Your task to perform on an android device: open sync settings in chrome Image 0: 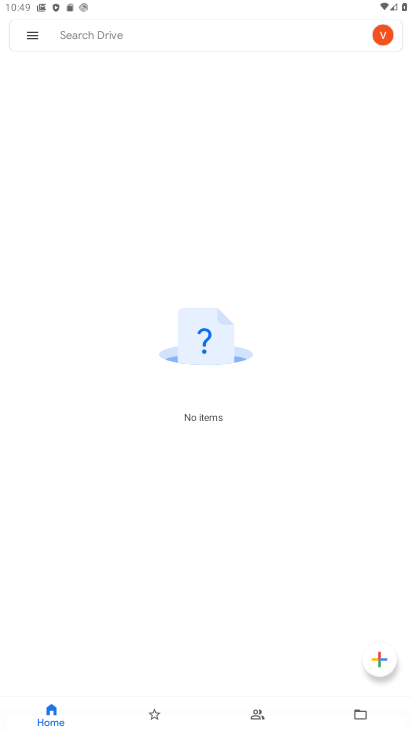
Step 0: press home button
Your task to perform on an android device: open sync settings in chrome Image 1: 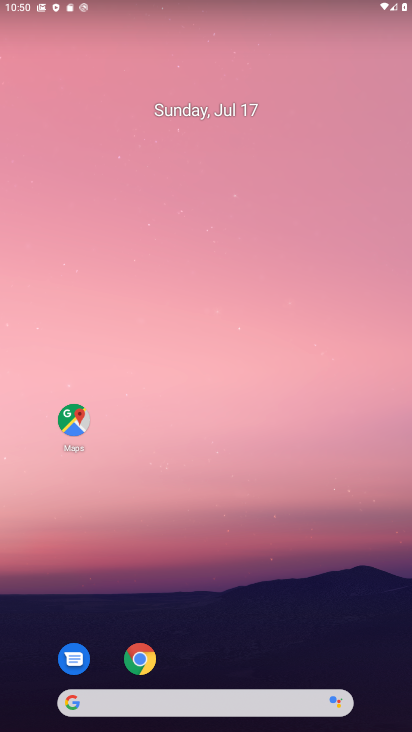
Step 1: drag from (246, 588) to (344, 185)
Your task to perform on an android device: open sync settings in chrome Image 2: 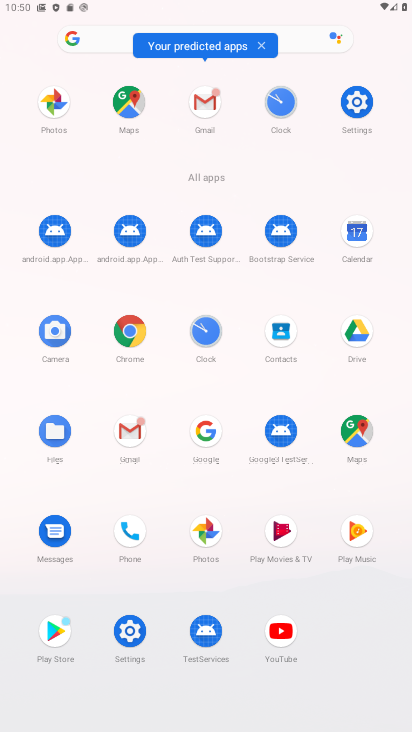
Step 2: click (125, 329)
Your task to perform on an android device: open sync settings in chrome Image 3: 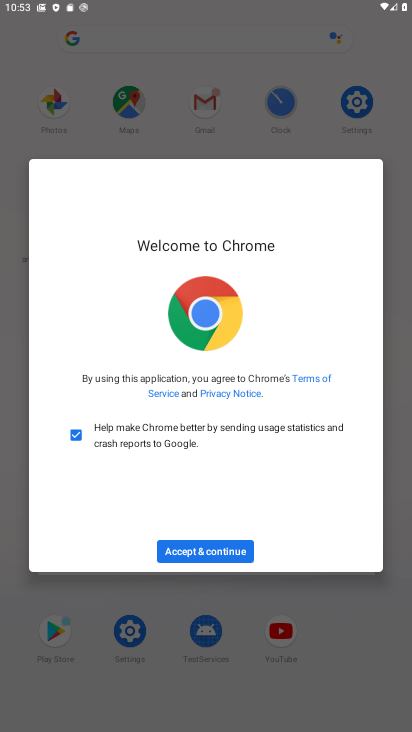
Step 3: click (209, 550)
Your task to perform on an android device: open sync settings in chrome Image 4: 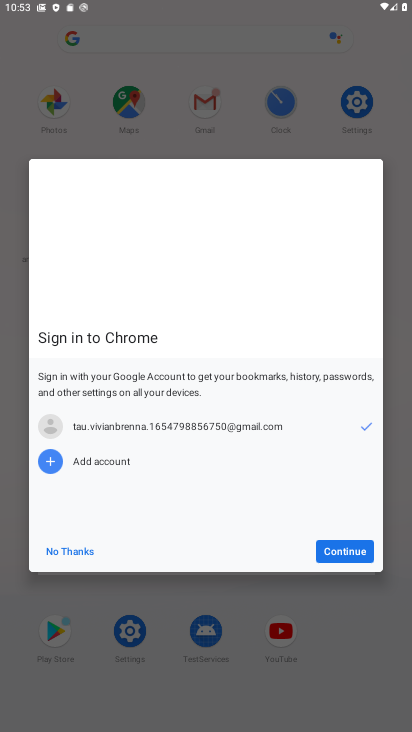
Step 4: click (338, 553)
Your task to perform on an android device: open sync settings in chrome Image 5: 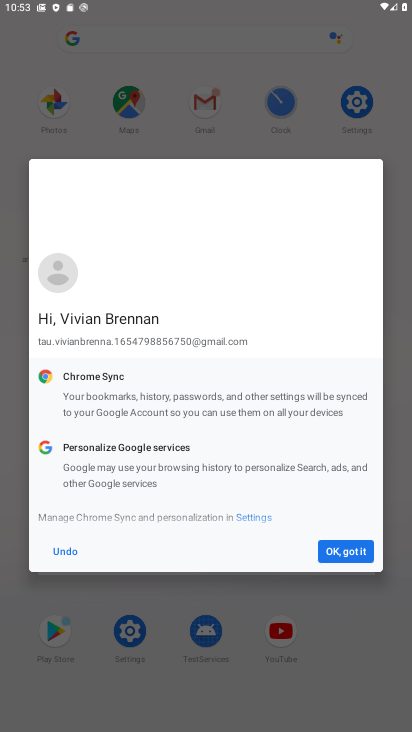
Step 5: click (341, 547)
Your task to perform on an android device: open sync settings in chrome Image 6: 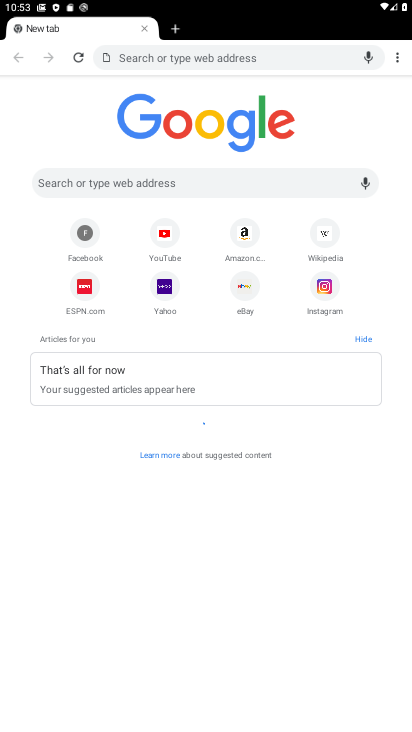
Step 6: click (398, 62)
Your task to perform on an android device: open sync settings in chrome Image 7: 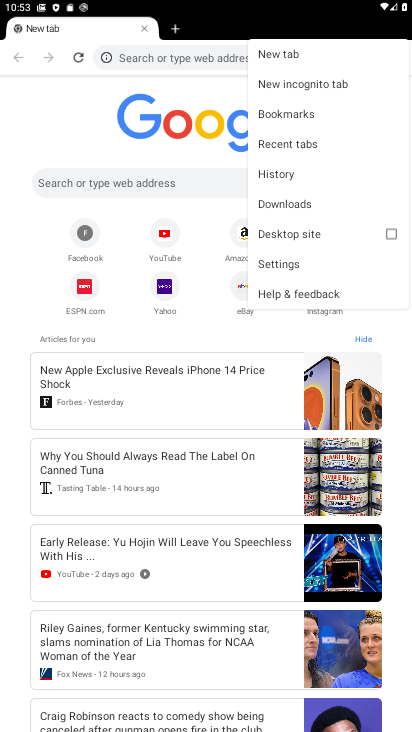
Step 7: click (311, 266)
Your task to perform on an android device: open sync settings in chrome Image 8: 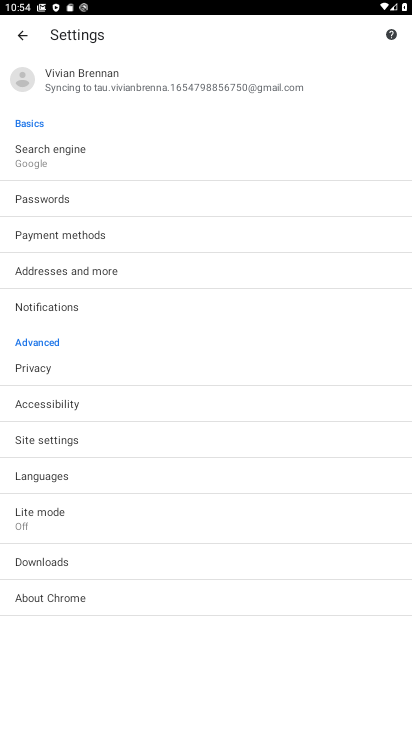
Step 8: task complete